Your task to perform on an android device: see tabs open on other devices in the chrome app Image 0: 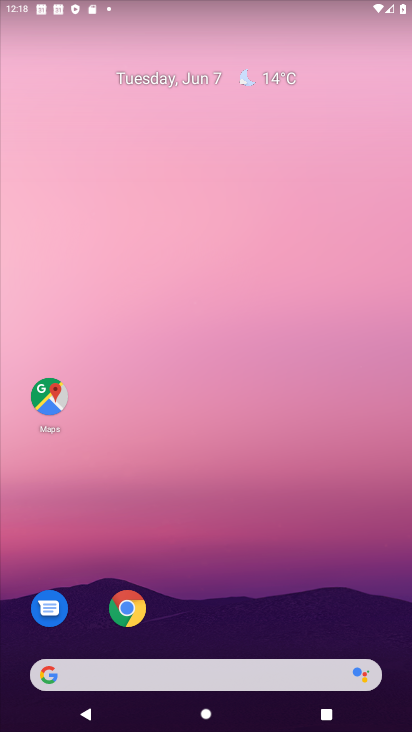
Step 0: drag from (189, 551) to (83, 7)
Your task to perform on an android device: see tabs open on other devices in the chrome app Image 1: 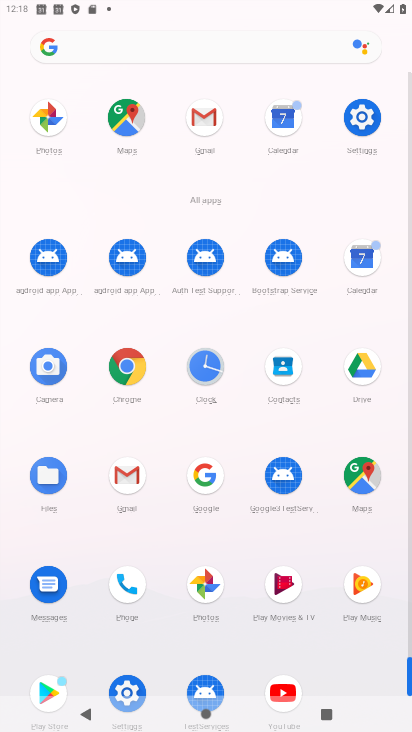
Step 1: drag from (0, 555) to (7, 167)
Your task to perform on an android device: see tabs open on other devices in the chrome app Image 2: 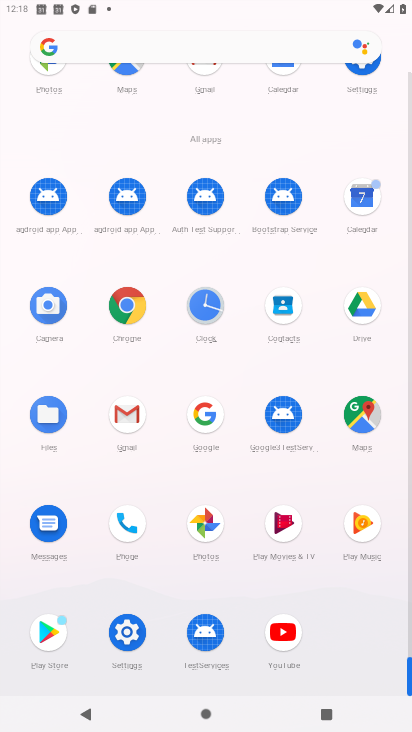
Step 2: click (128, 302)
Your task to perform on an android device: see tabs open on other devices in the chrome app Image 3: 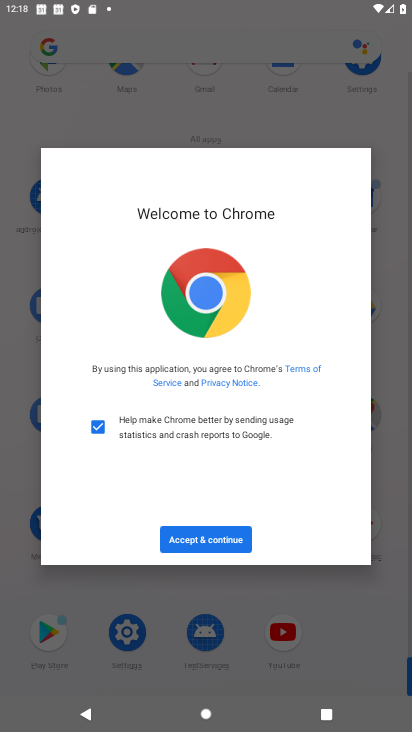
Step 3: click (223, 535)
Your task to perform on an android device: see tabs open on other devices in the chrome app Image 4: 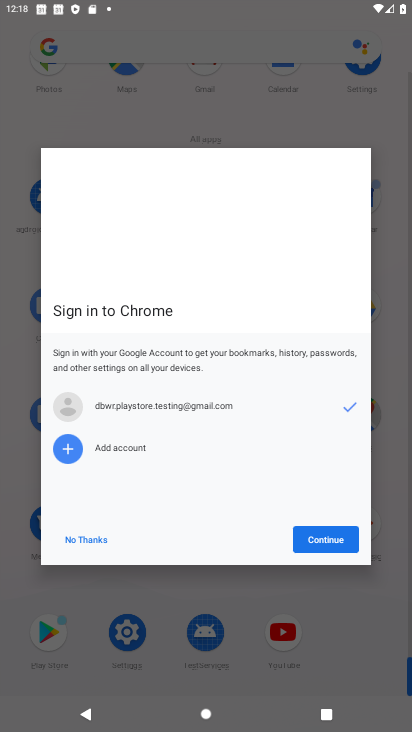
Step 4: click (318, 535)
Your task to perform on an android device: see tabs open on other devices in the chrome app Image 5: 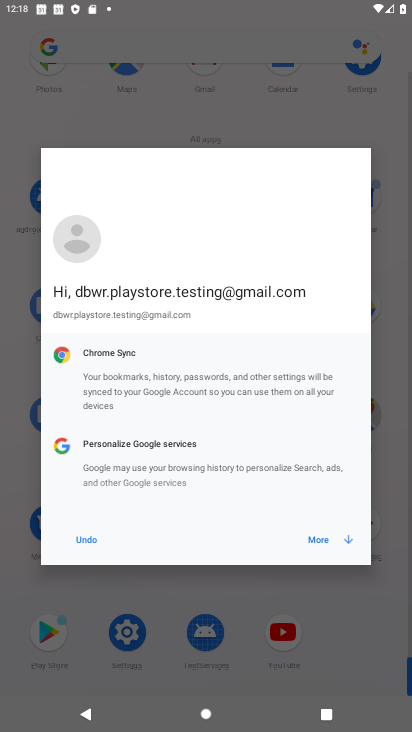
Step 5: click (318, 535)
Your task to perform on an android device: see tabs open on other devices in the chrome app Image 6: 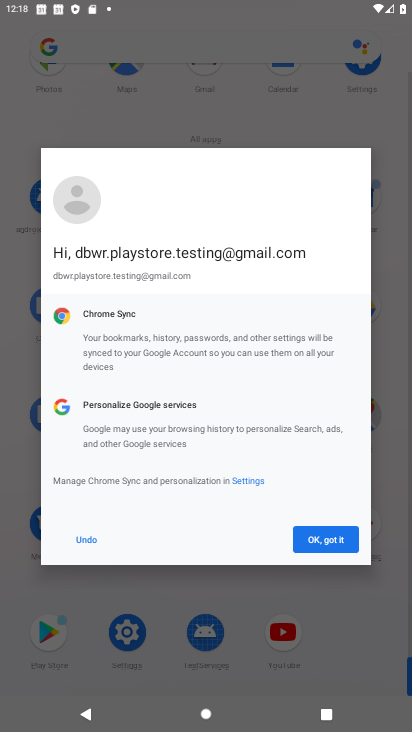
Step 6: click (318, 535)
Your task to perform on an android device: see tabs open on other devices in the chrome app Image 7: 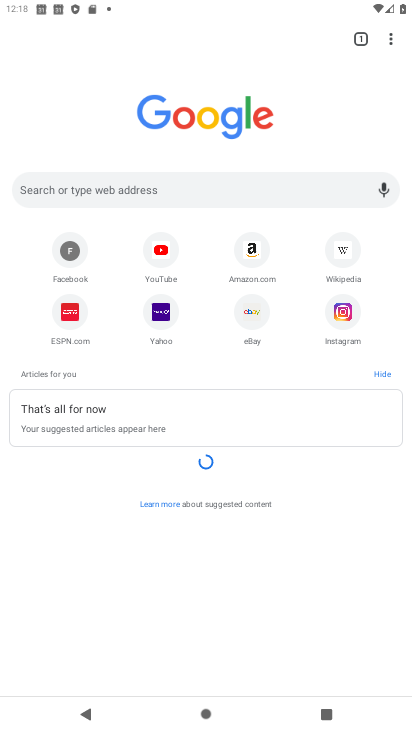
Step 7: task complete